Your task to perform on an android device: star an email in the gmail app Image 0: 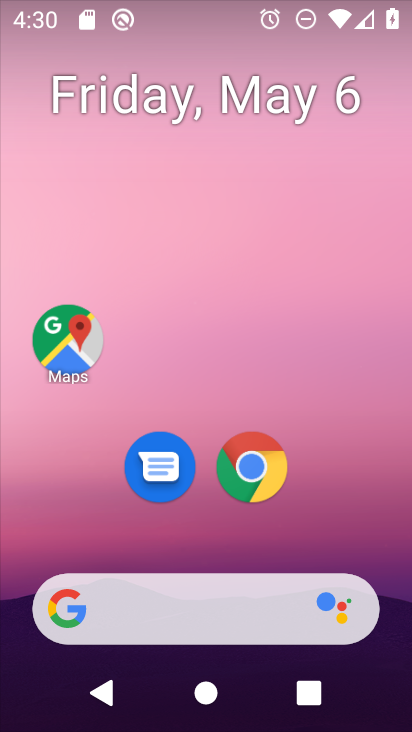
Step 0: drag from (283, 306) to (307, 109)
Your task to perform on an android device: star an email in the gmail app Image 1: 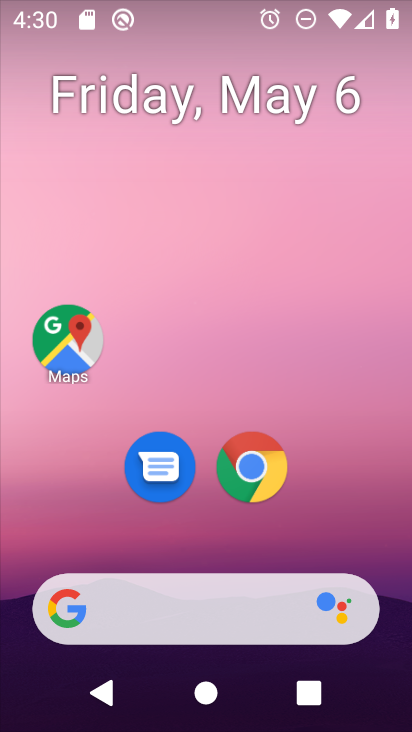
Step 1: drag from (271, 423) to (286, 81)
Your task to perform on an android device: star an email in the gmail app Image 2: 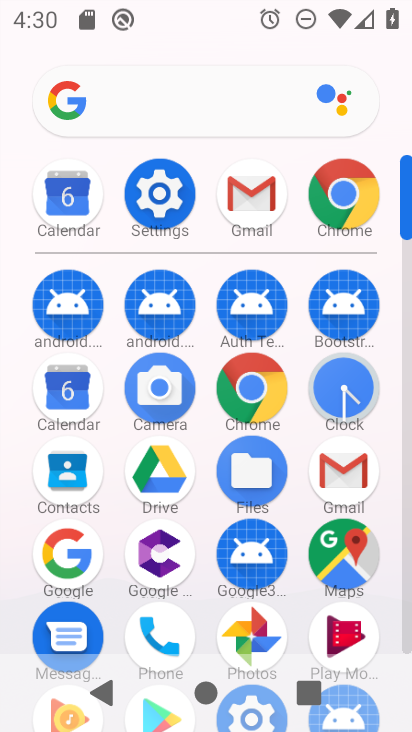
Step 2: click (236, 205)
Your task to perform on an android device: star an email in the gmail app Image 3: 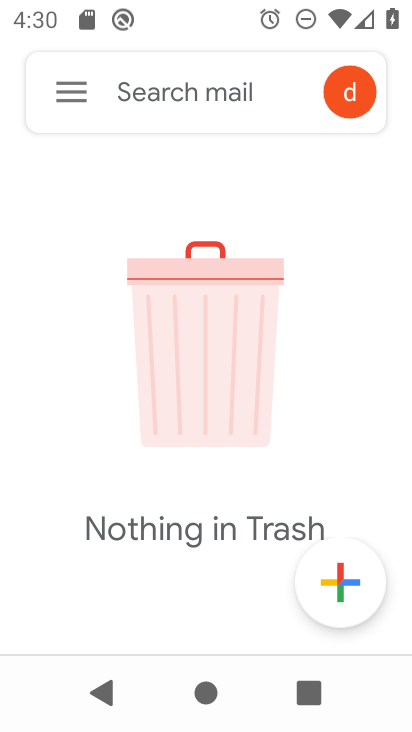
Step 3: click (80, 86)
Your task to perform on an android device: star an email in the gmail app Image 4: 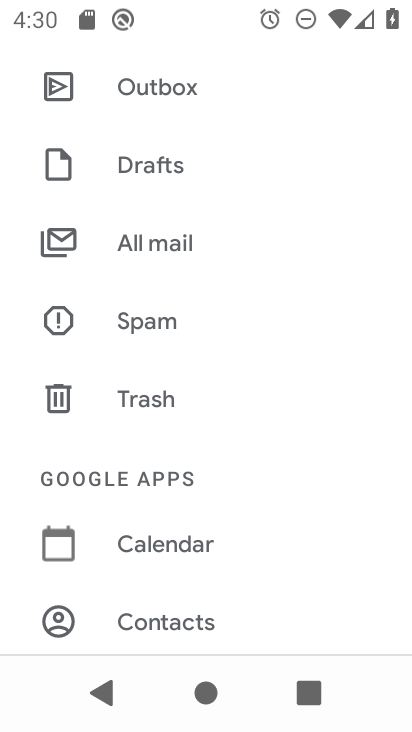
Step 4: click (156, 274)
Your task to perform on an android device: star an email in the gmail app Image 5: 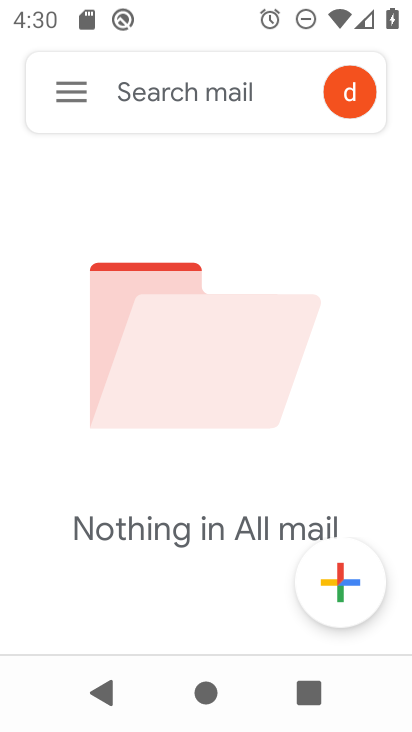
Step 5: task complete